Your task to perform on an android device: Check the weather Image 0: 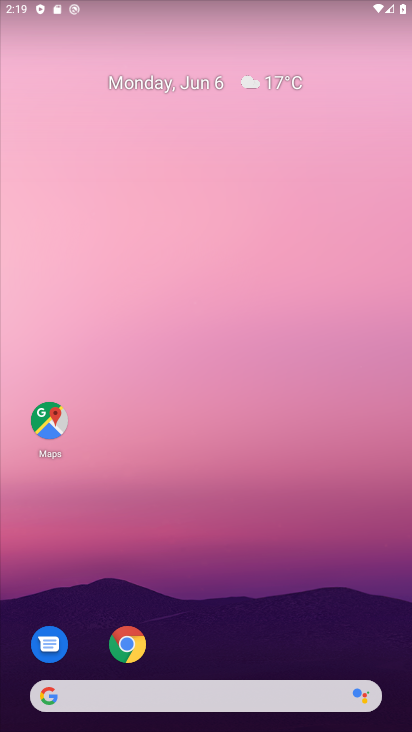
Step 0: click (161, 691)
Your task to perform on an android device: Check the weather Image 1: 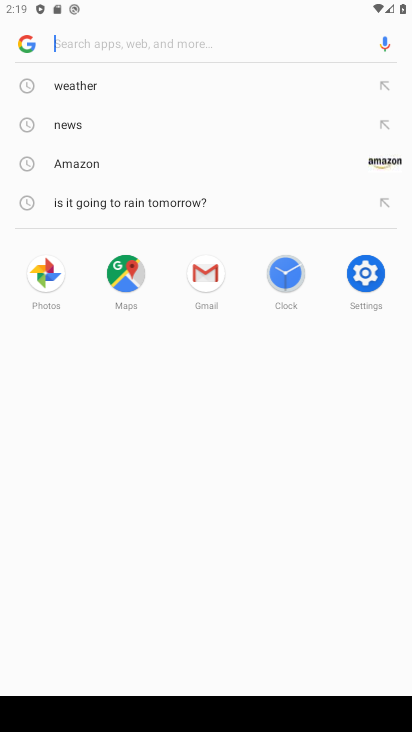
Step 1: type "weather"
Your task to perform on an android device: Check the weather Image 2: 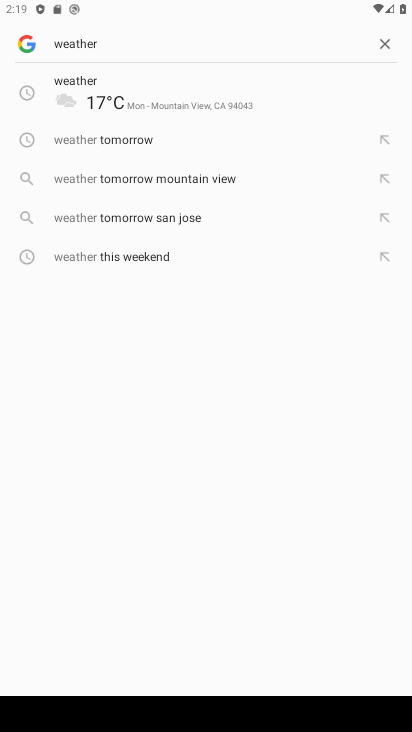
Step 2: click (84, 86)
Your task to perform on an android device: Check the weather Image 3: 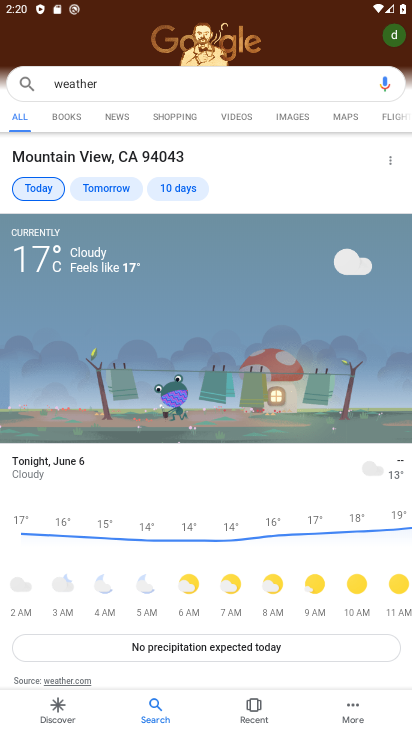
Step 3: task complete